Your task to perform on an android device: Clear the cart on costco. Add "rayovac triple a" to the cart on costco Image 0: 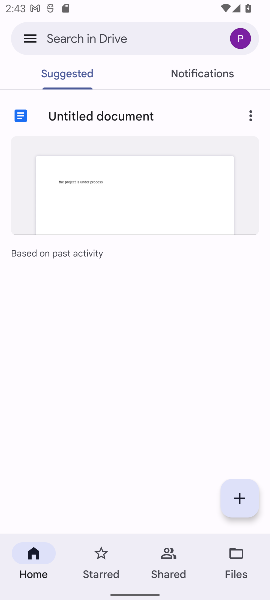
Step 0: press home button
Your task to perform on an android device: Clear the cart on costco. Add "rayovac triple a" to the cart on costco Image 1: 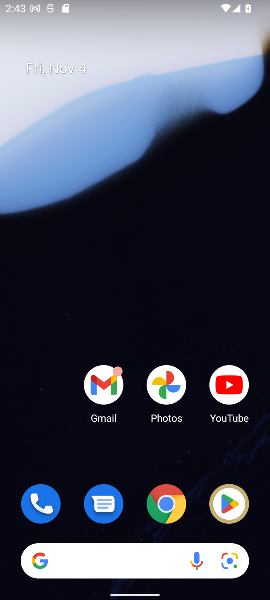
Step 1: click (165, 516)
Your task to perform on an android device: Clear the cart on costco. Add "rayovac triple a" to the cart on costco Image 2: 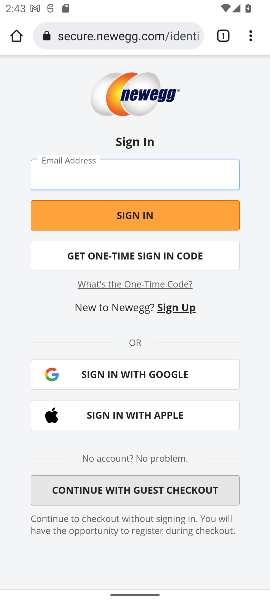
Step 2: click (99, 45)
Your task to perform on an android device: Clear the cart on costco. Add "rayovac triple a" to the cart on costco Image 3: 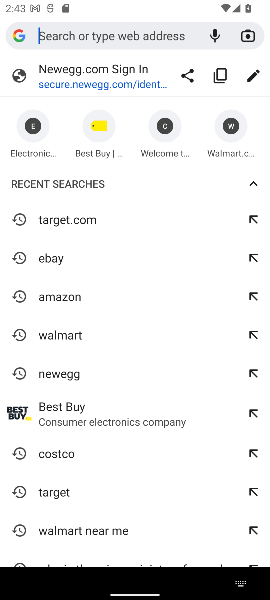
Step 3: click (61, 455)
Your task to perform on an android device: Clear the cart on costco. Add "rayovac triple a" to the cart on costco Image 4: 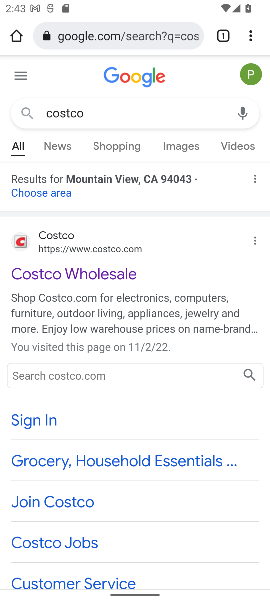
Step 4: click (68, 275)
Your task to perform on an android device: Clear the cart on costco. Add "rayovac triple a" to the cart on costco Image 5: 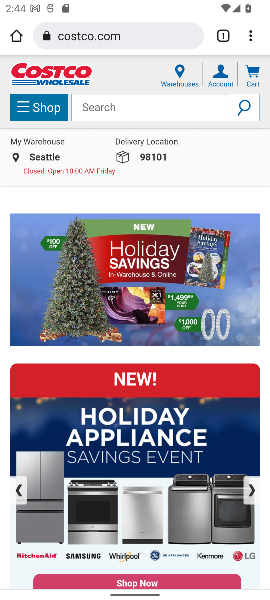
Step 5: click (250, 76)
Your task to perform on an android device: Clear the cart on costco. Add "rayovac triple a" to the cart on costco Image 6: 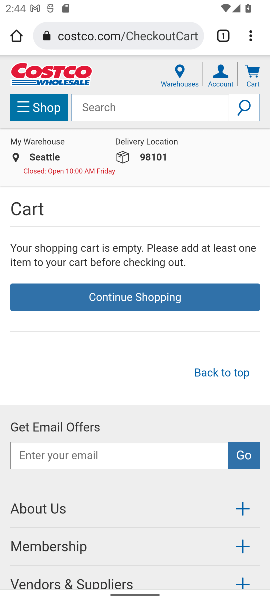
Step 6: click (128, 100)
Your task to perform on an android device: Clear the cart on costco. Add "rayovac triple a" to the cart on costco Image 7: 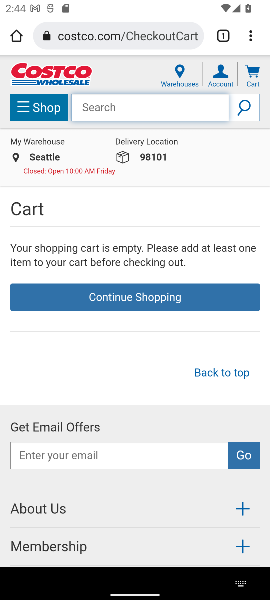
Step 7: type "rayovac triple a"
Your task to perform on an android device: Clear the cart on costco. Add "rayovac triple a" to the cart on costco Image 8: 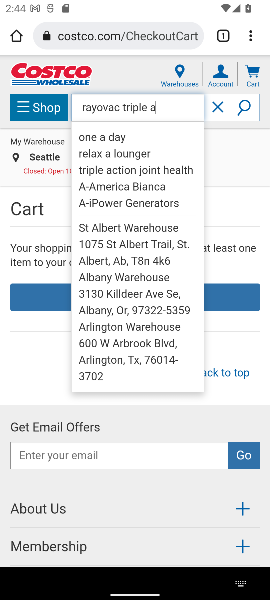
Step 8: click (238, 107)
Your task to perform on an android device: Clear the cart on costco. Add "rayovac triple a" to the cart on costco Image 9: 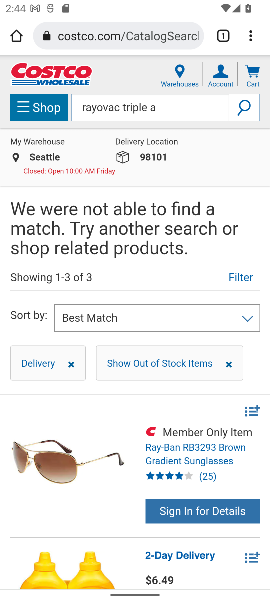
Step 9: task complete